Your task to perform on an android device: Go to Wikipedia Image 0: 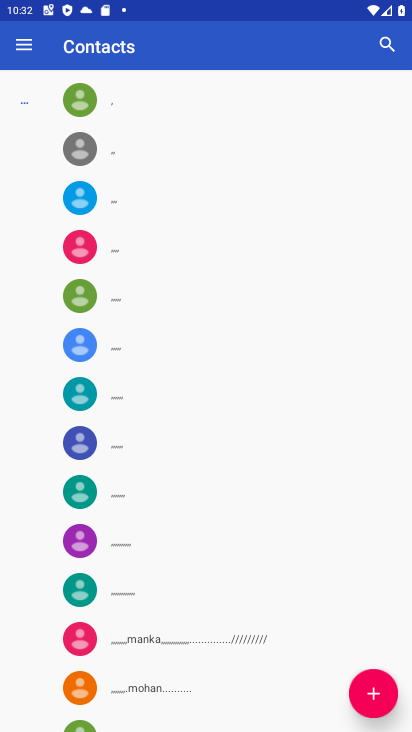
Step 0: press home button
Your task to perform on an android device: Go to Wikipedia Image 1: 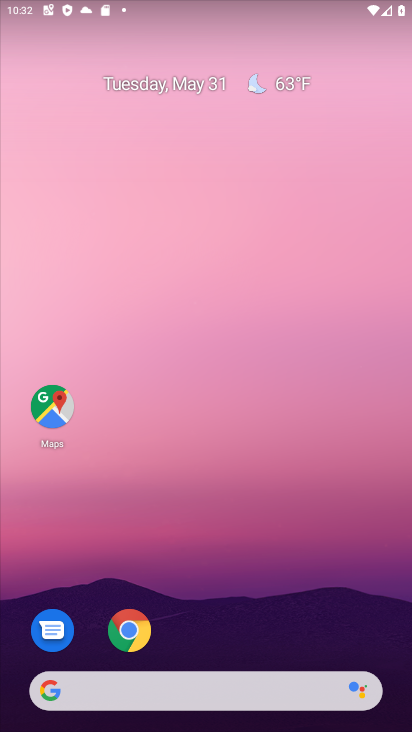
Step 1: click (127, 627)
Your task to perform on an android device: Go to Wikipedia Image 2: 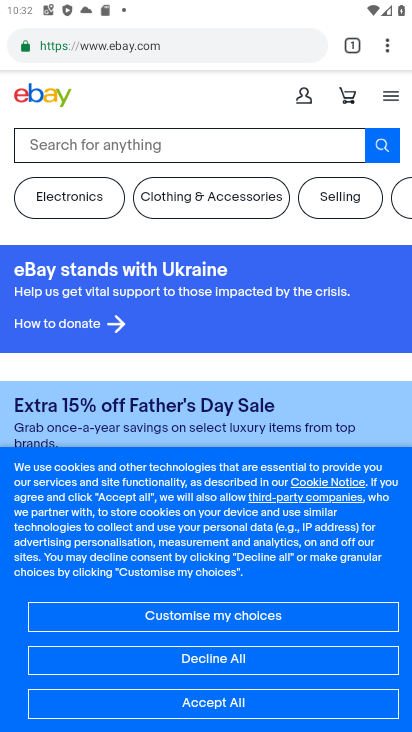
Step 2: click (151, 47)
Your task to perform on an android device: Go to Wikipedia Image 3: 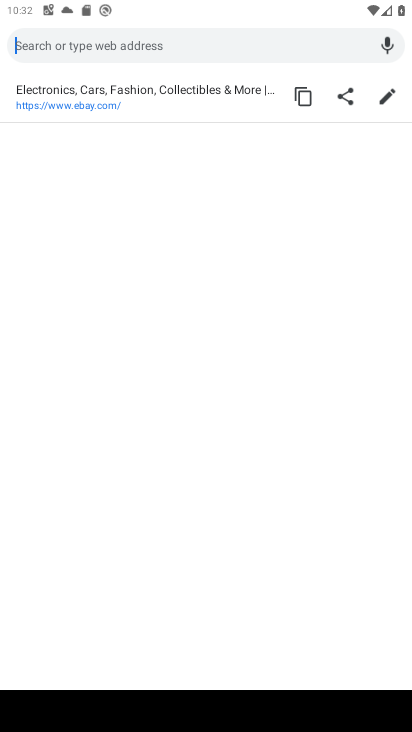
Step 3: type "wikipedia"
Your task to perform on an android device: Go to Wikipedia Image 4: 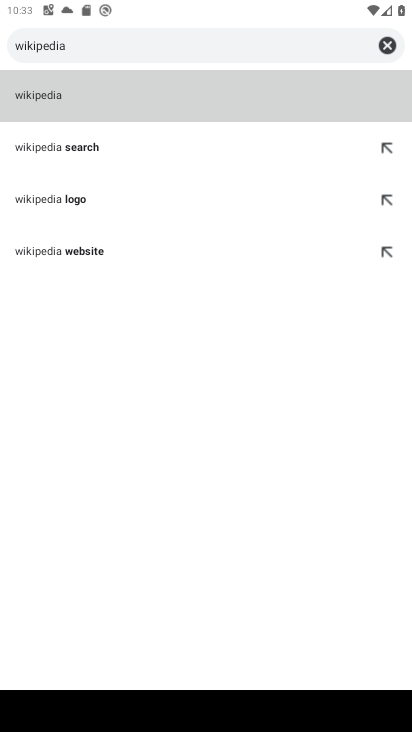
Step 4: click (43, 98)
Your task to perform on an android device: Go to Wikipedia Image 5: 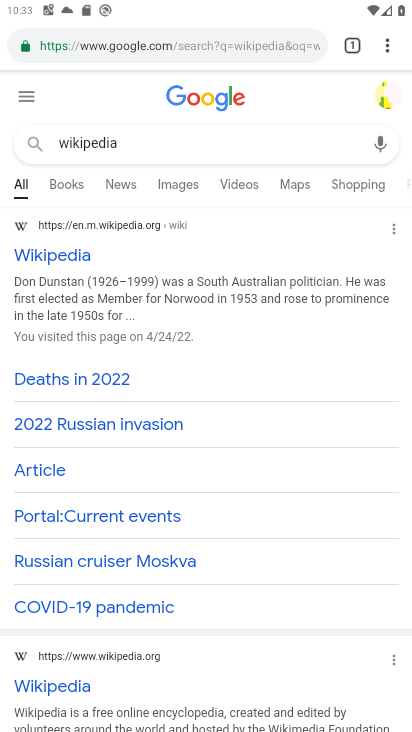
Step 5: click (65, 253)
Your task to perform on an android device: Go to Wikipedia Image 6: 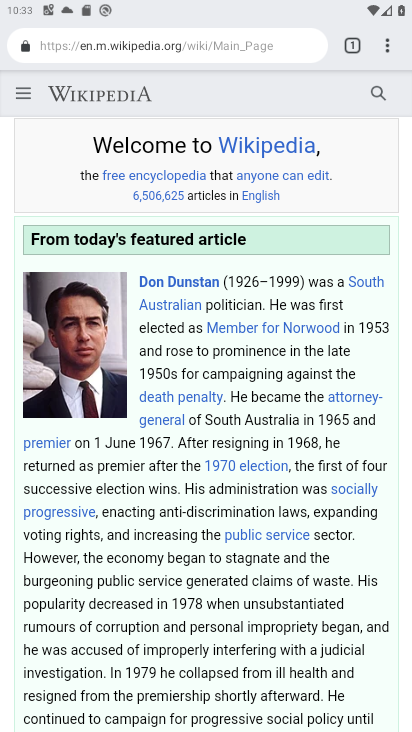
Step 6: task complete